Your task to perform on an android device: Open the stopwatch Image 0: 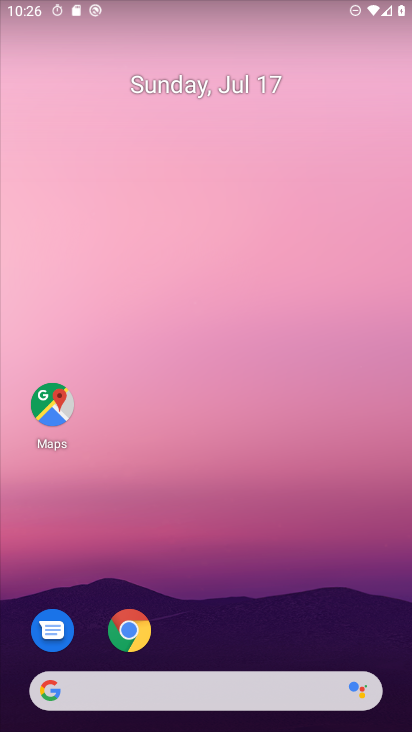
Step 0: drag from (234, 610) to (179, 114)
Your task to perform on an android device: Open the stopwatch Image 1: 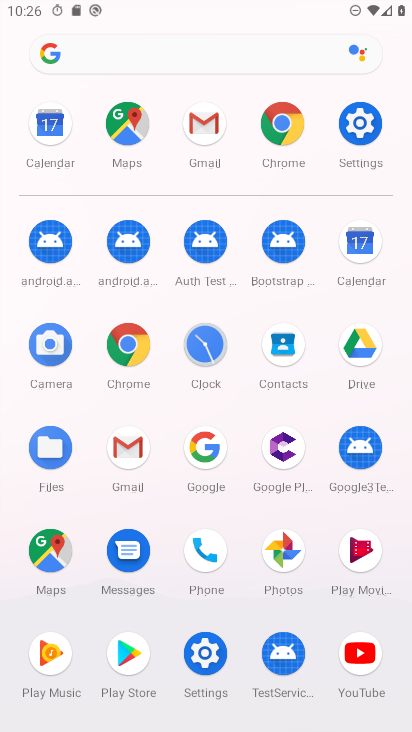
Step 1: click (209, 346)
Your task to perform on an android device: Open the stopwatch Image 2: 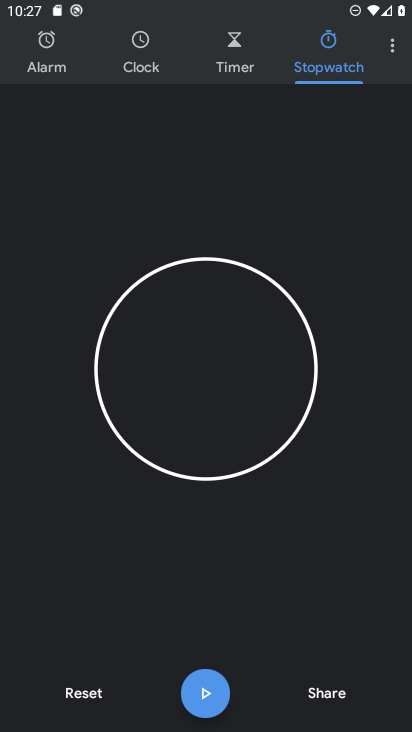
Step 2: click (211, 681)
Your task to perform on an android device: Open the stopwatch Image 3: 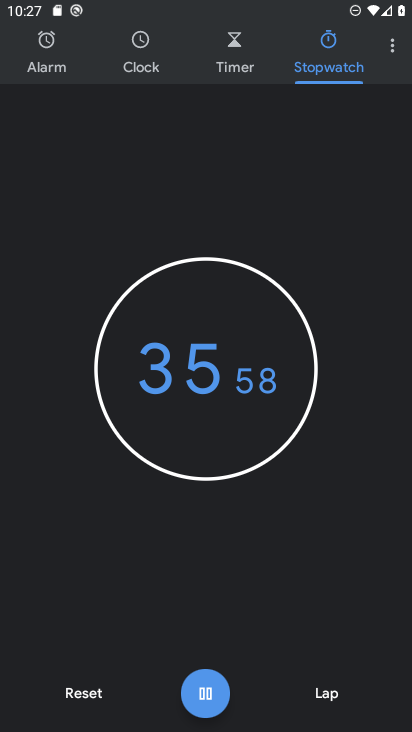
Step 3: click (212, 688)
Your task to perform on an android device: Open the stopwatch Image 4: 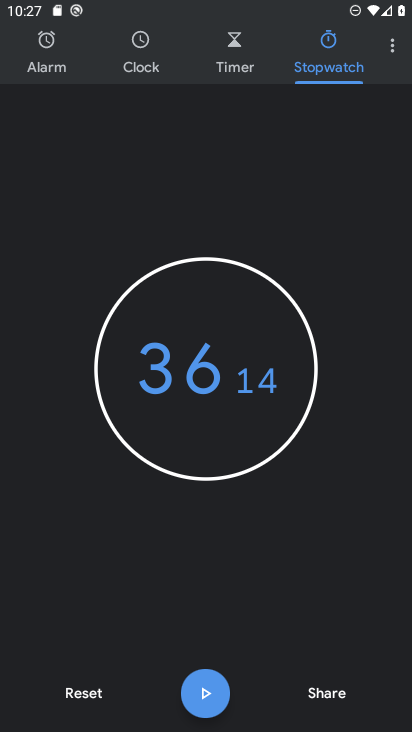
Step 4: task complete